Your task to perform on an android device: set an alarm Image 0: 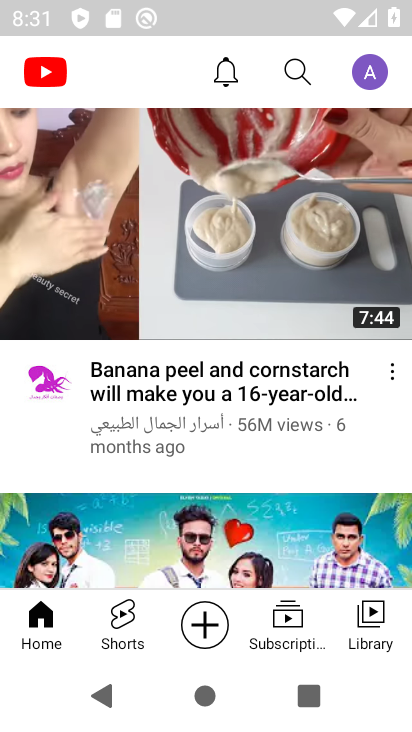
Step 0: press back button
Your task to perform on an android device: set an alarm Image 1: 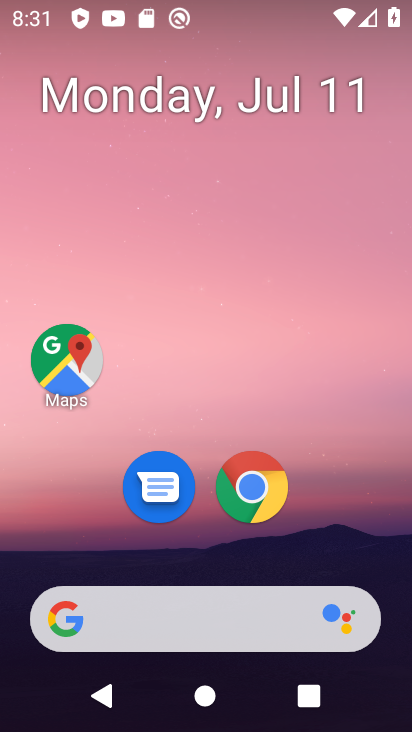
Step 1: drag from (255, 522) to (310, 0)
Your task to perform on an android device: set an alarm Image 2: 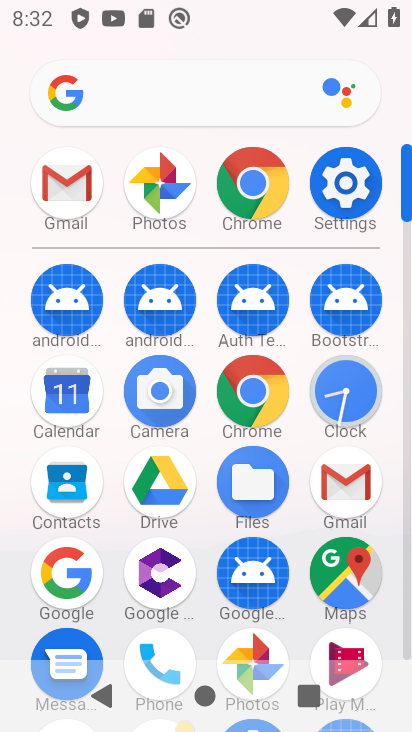
Step 2: click (358, 389)
Your task to perform on an android device: set an alarm Image 3: 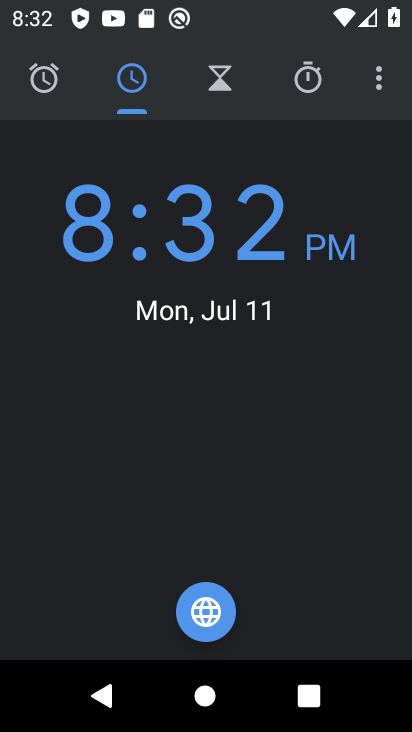
Step 3: click (54, 88)
Your task to perform on an android device: set an alarm Image 4: 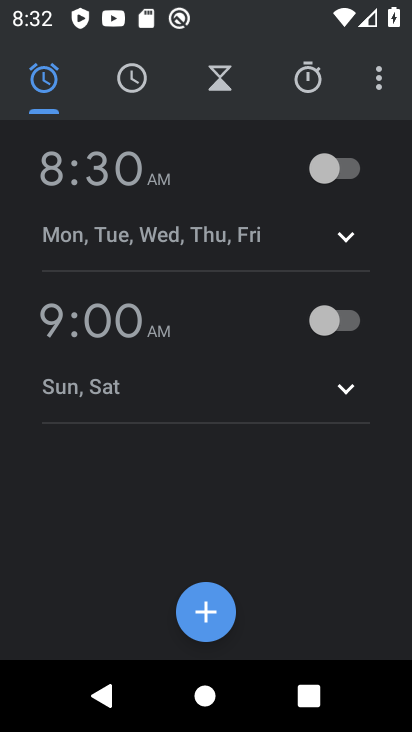
Step 4: click (325, 166)
Your task to perform on an android device: set an alarm Image 5: 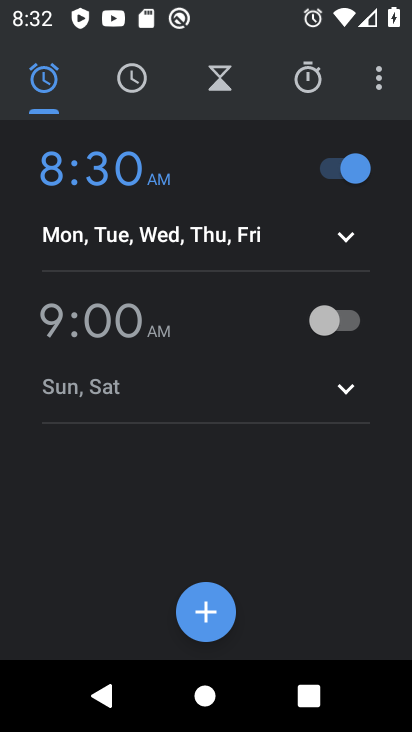
Step 5: task complete